Your task to perform on an android device: Open internet settings Image 0: 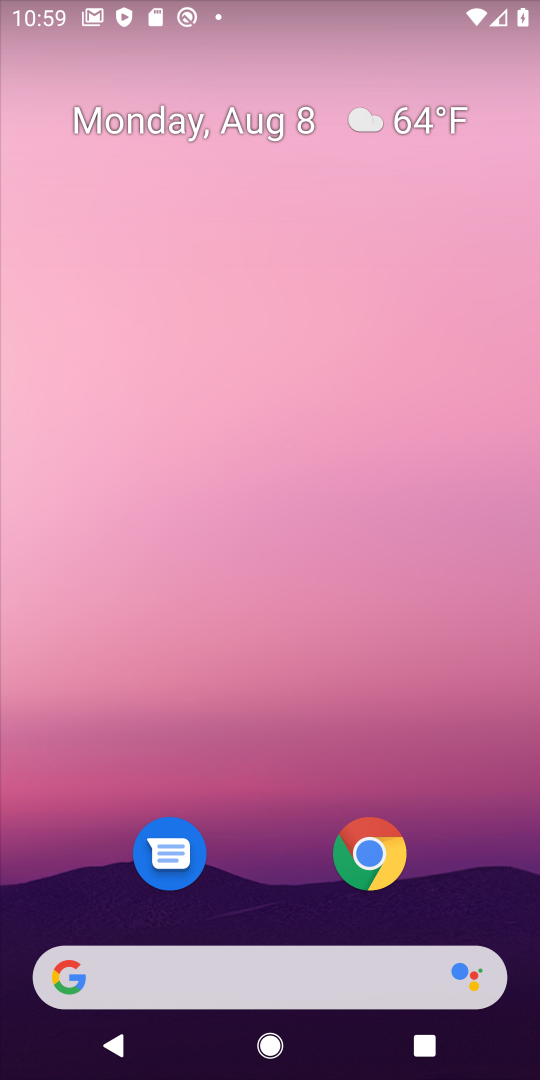
Step 0: drag from (310, 11) to (382, 892)
Your task to perform on an android device: Open internet settings Image 1: 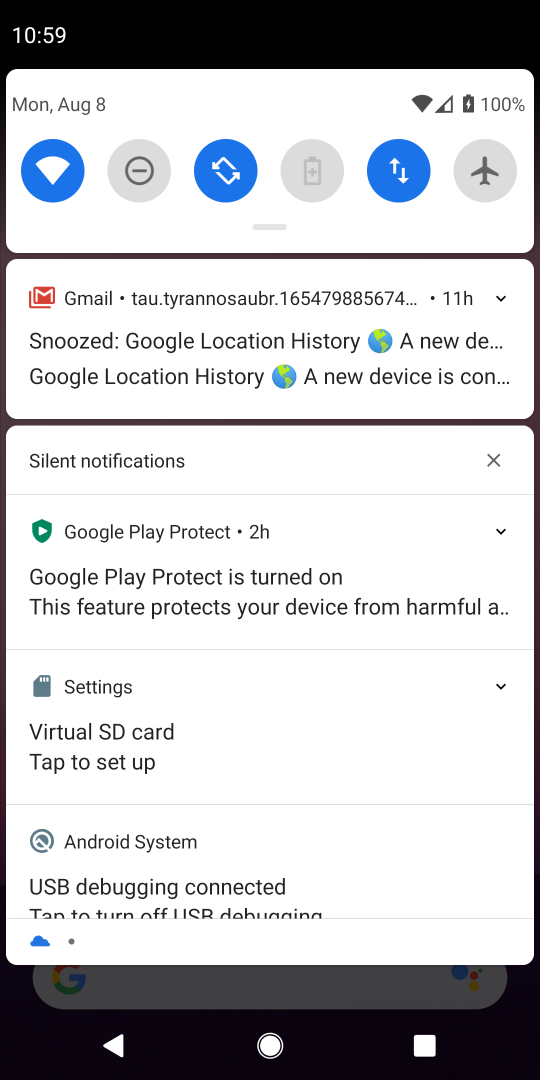
Step 1: click (382, 164)
Your task to perform on an android device: Open internet settings Image 2: 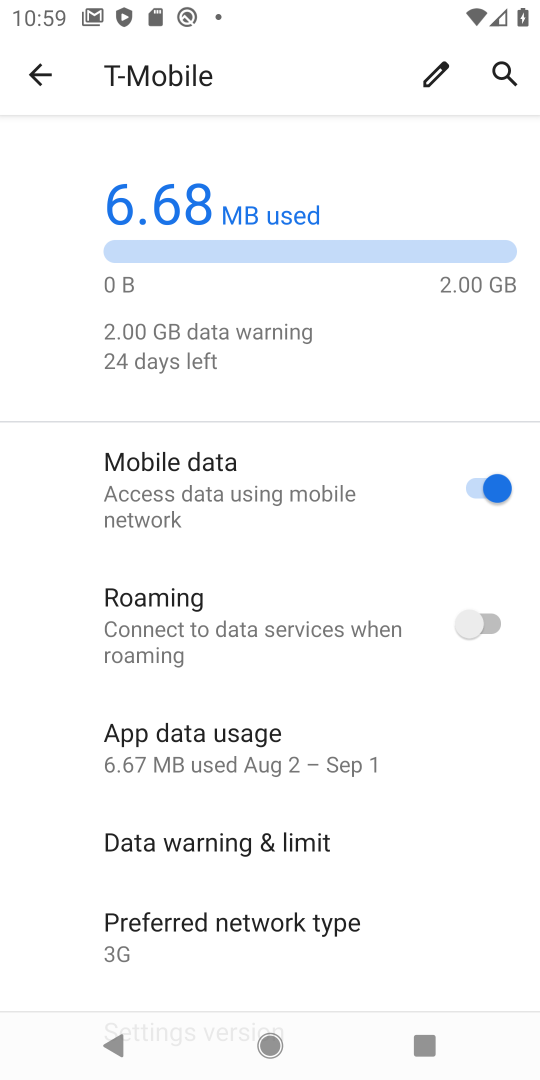
Step 2: click (41, 63)
Your task to perform on an android device: Open internet settings Image 3: 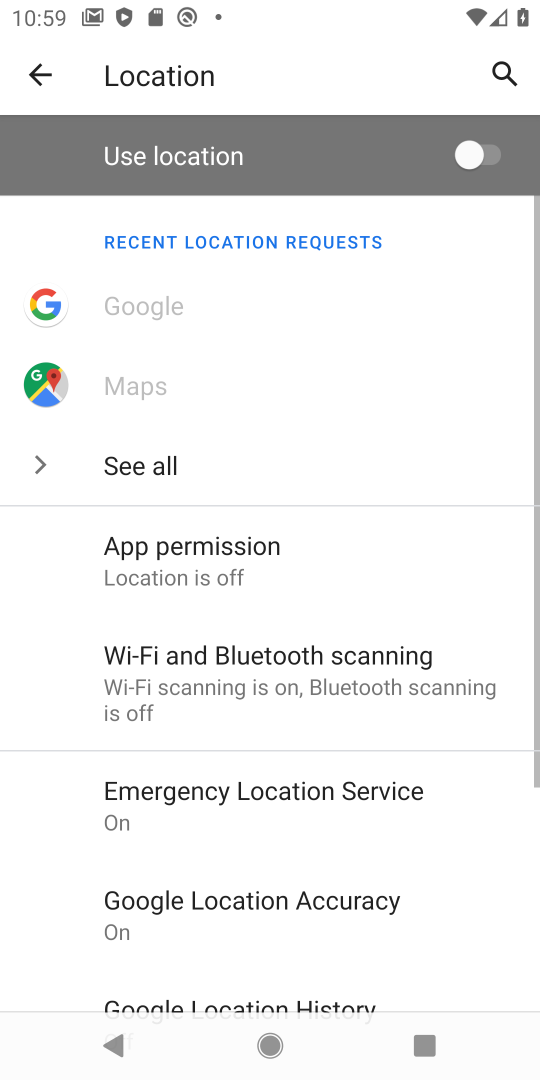
Step 3: click (41, 63)
Your task to perform on an android device: Open internet settings Image 4: 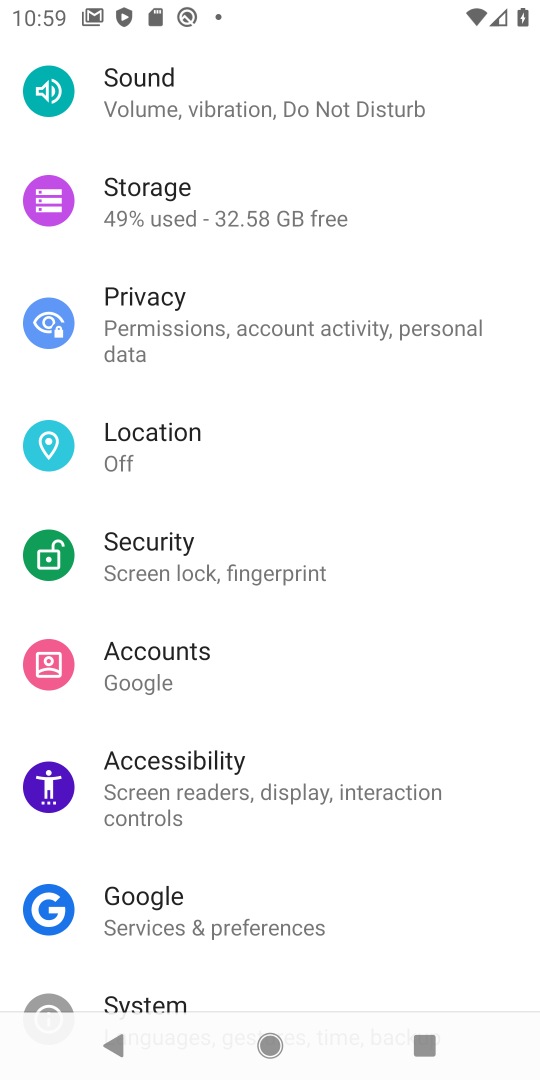
Step 4: drag from (392, 243) to (348, 1018)
Your task to perform on an android device: Open internet settings Image 5: 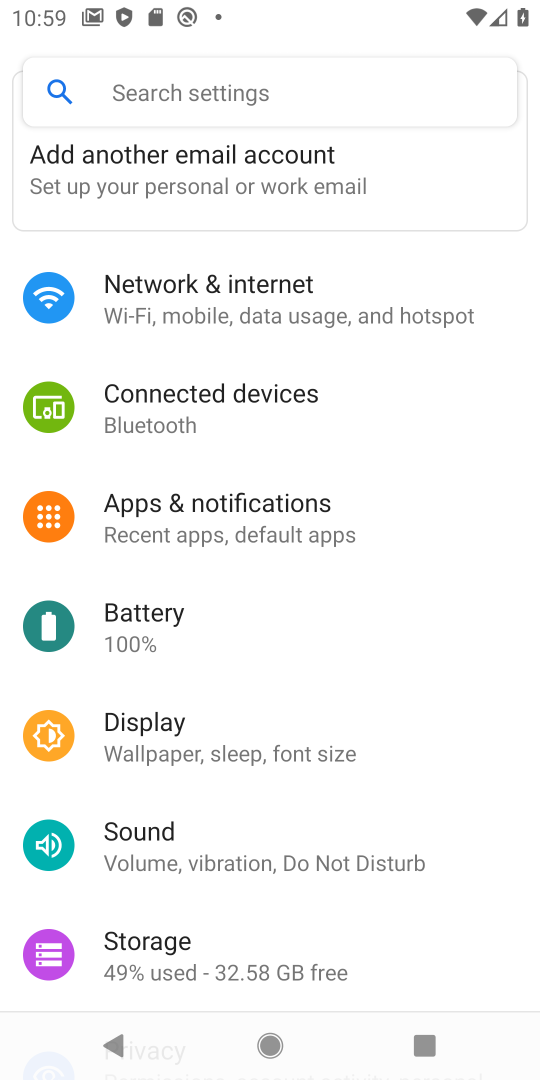
Step 5: click (208, 310)
Your task to perform on an android device: Open internet settings Image 6: 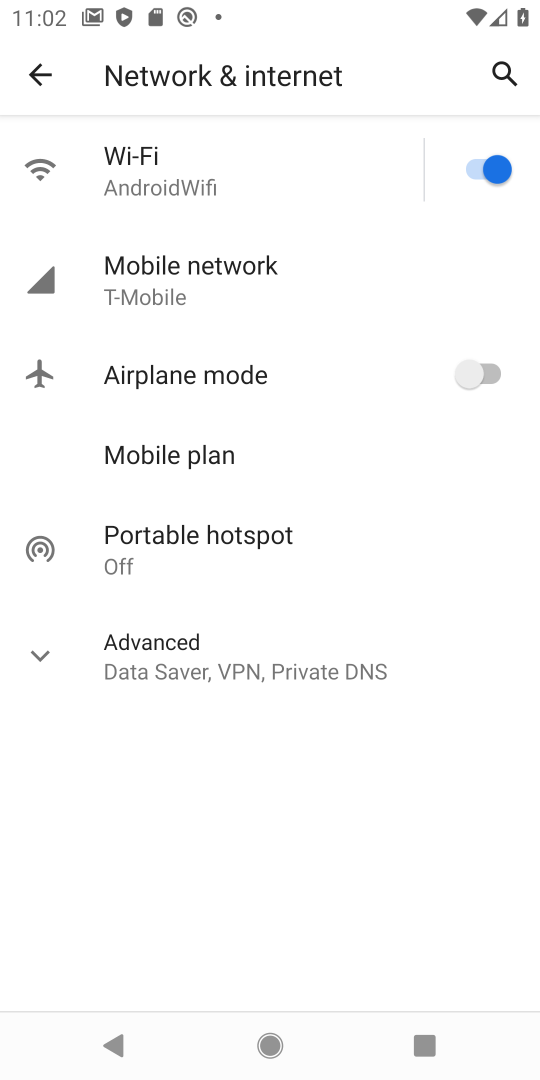
Step 6: task complete